Your task to perform on an android device: turn off javascript in the chrome app Image 0: 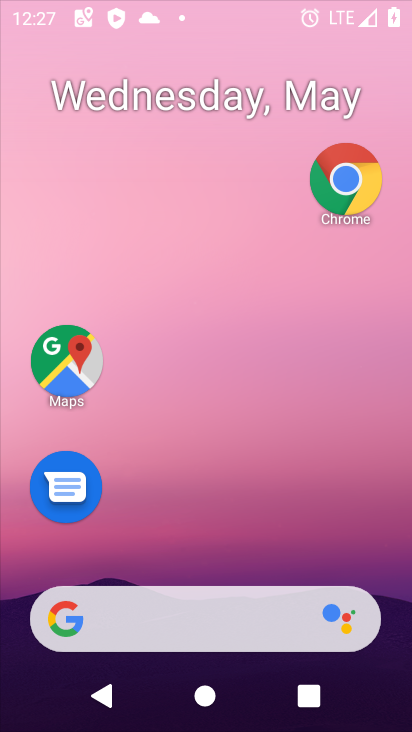
Step 0: click (290, 67)
Your task to perform on an android device: turn off javascript in the chrome app Image 1: 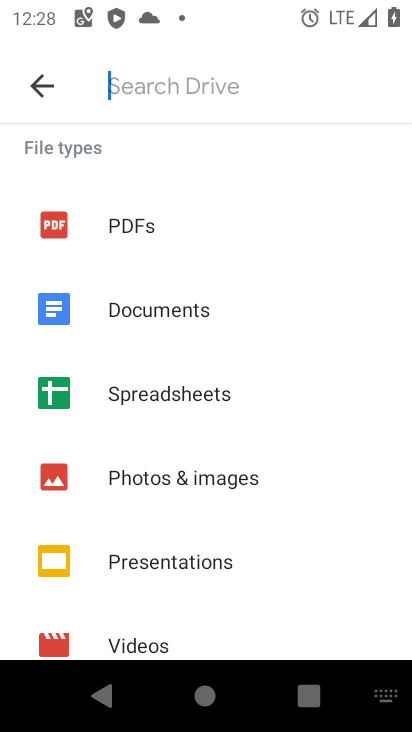
Step 1: drag from (196, 563) to (283, 179)
Your task to perform on an android device: turn off javascript in the chrome app Image 2: 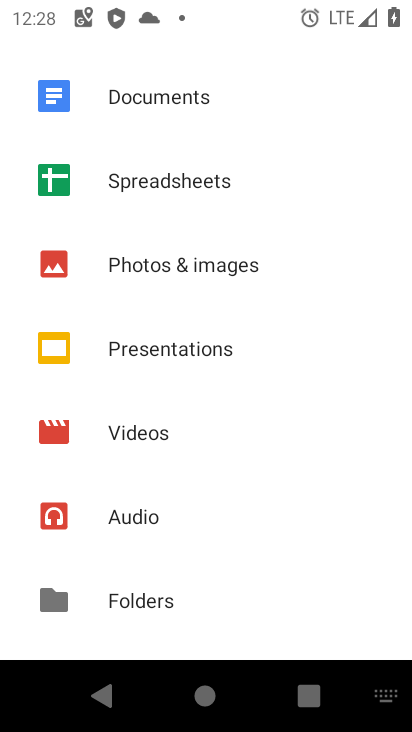
Step 2: press home button
Your task to perform on an android device: turn off javascript in the chrome app Image 3: 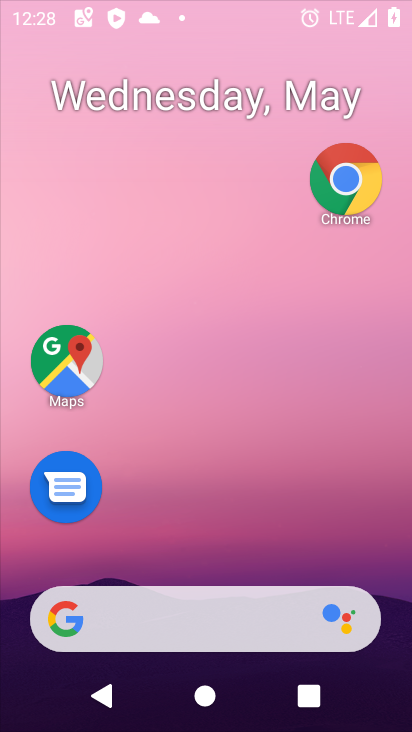
Step 3: drag from (223, 577) to (286, 217)
Your task to perform on an android device: turn off javascript in the chrome app Image 4: 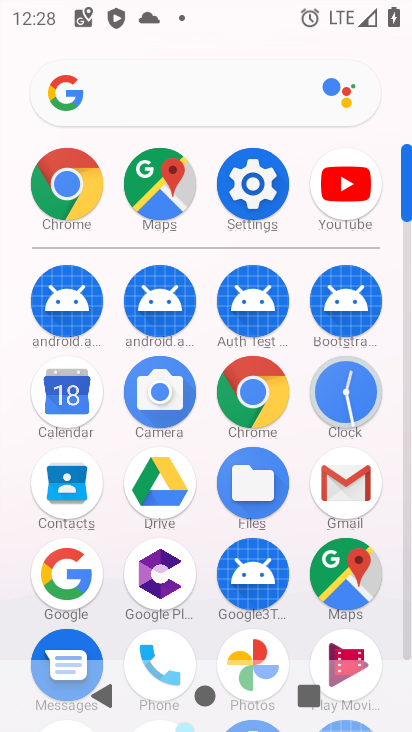
Step 4: click (255, 406)
Your task to perform on an android device: turn off javascript in the chrome app Image 5: 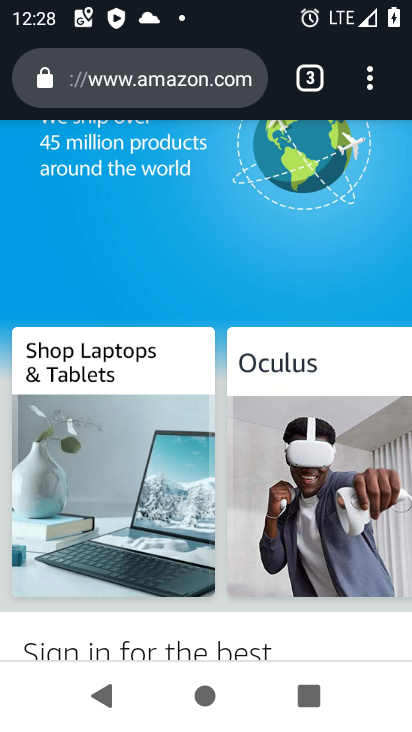
Step 5: drag from (204, 493) to (207, 270)
Your task to perform on an android device: turn off javascript in the chrome app Image 6: 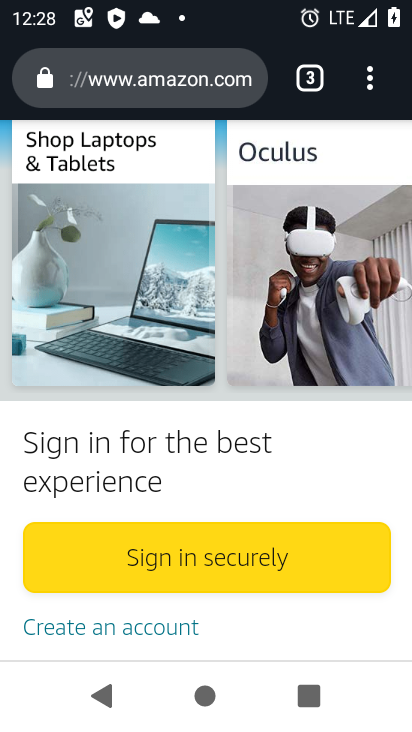
Step 6: click (376, 69)
Your task to perform on an android device: turn off javascript in the chrome app Image 7: 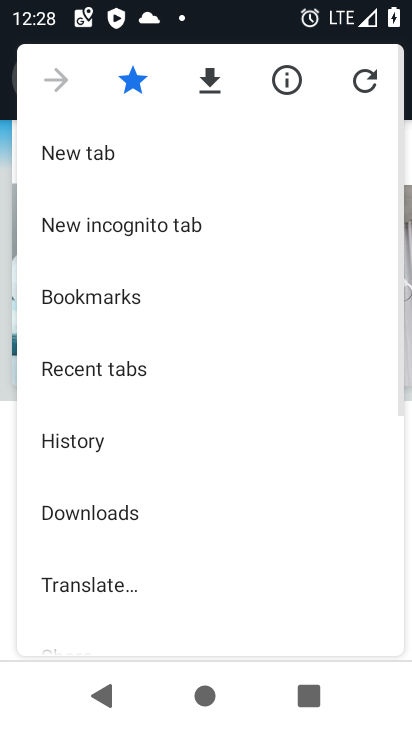
Step 7: drag from (249, 602) to (265, 153)
Your task to perform on an android device: turn off javascript in the chrome app Image 8: 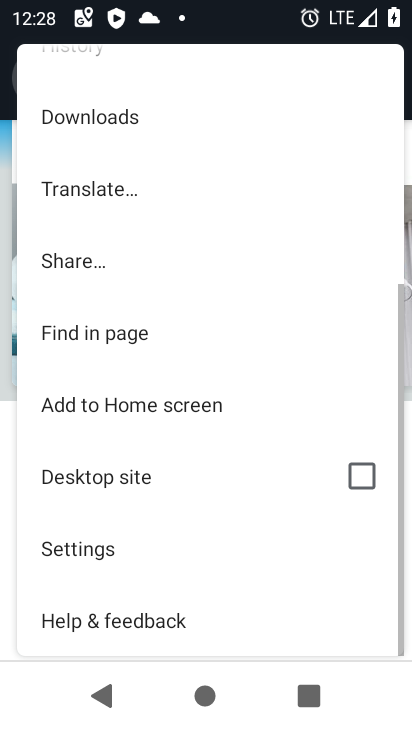
Step 8: click (181, 543)
Your task to perform on an android device: turn off javascript in the chrome app Image 9: 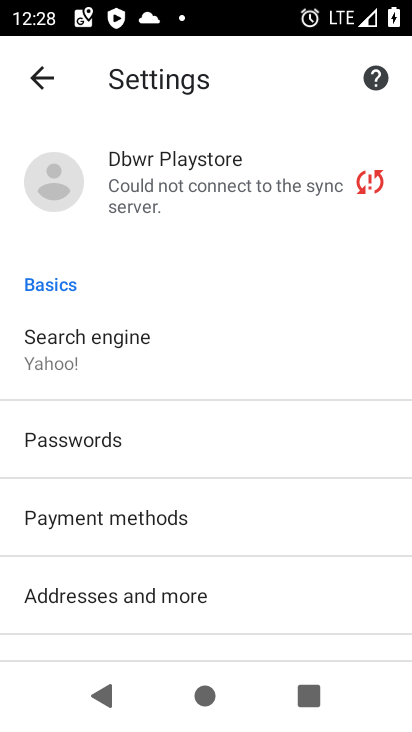
Step 9: drag from (194, 470) to (326, 103)
Your task to perform on an android device: turn off javascript in the chrome app Image 10: 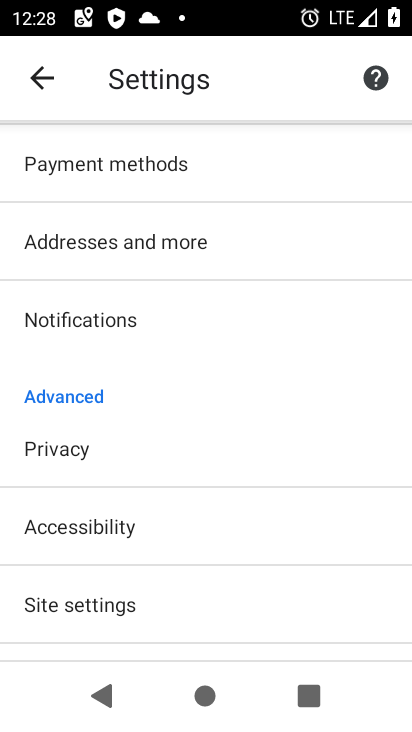
Step 10: click (173, 577)
Your task to perform on an android device: turn off javascript in the chrome app Image 11: 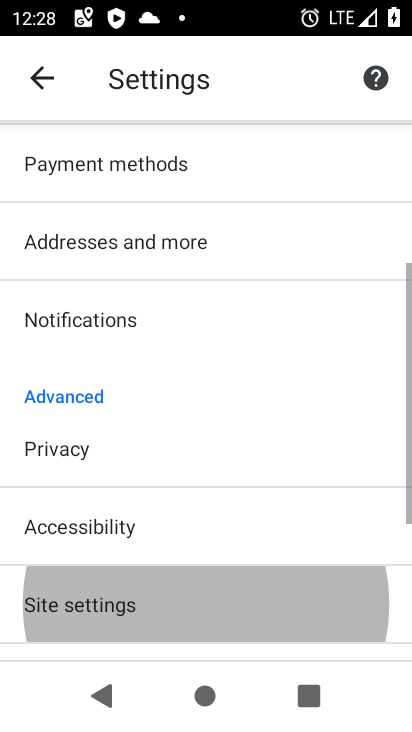
Step 11: click (173, 577)
Your task to perform on an android device: turn off javascript in the chrome app Image 12: 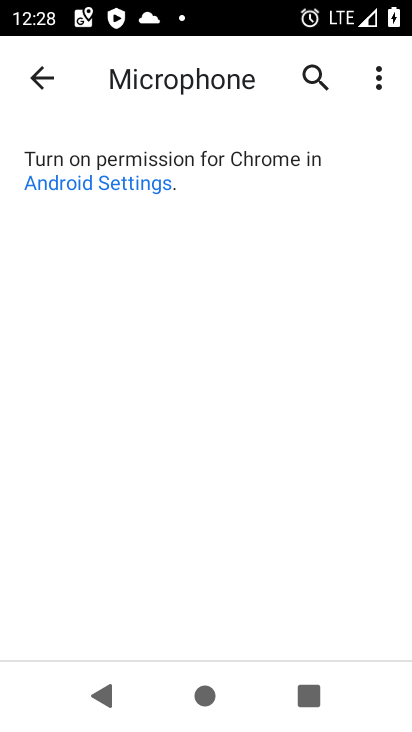
Step 12: click (38, 84)
Your task to perform on an android device: turn off javascript in the chrome app Image 13: 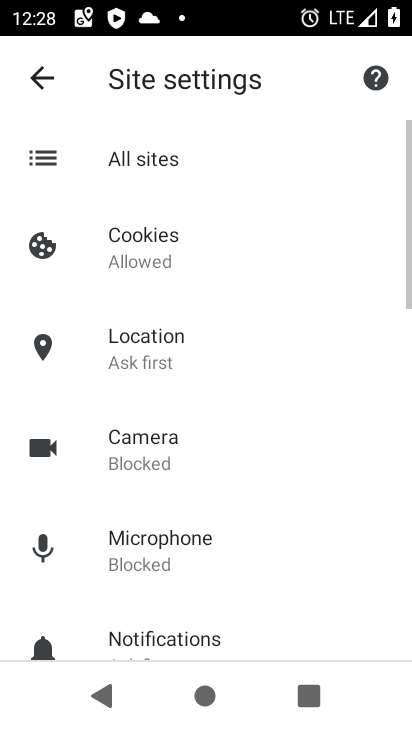
Step 13: drag from (216, 582) to (244, 318)
Your task to perform on an android device: turn off javascript in the chrome app Image 14: 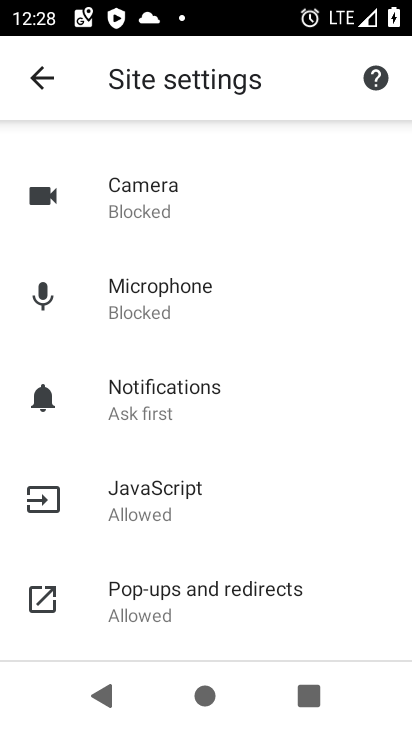
Step 14: click (259, 494)
Your task to perform on an android device: turn off javascript in the chrome app Image 15: 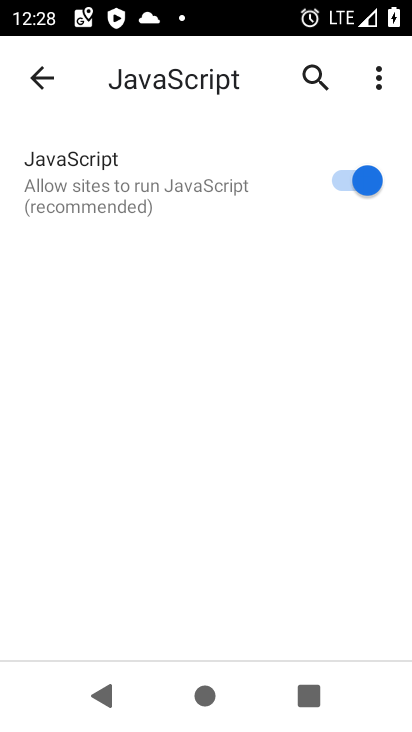
Step 15: click (362, 176)
Your task to perform on an android device: turn off javascript in the chrome app Image 16: 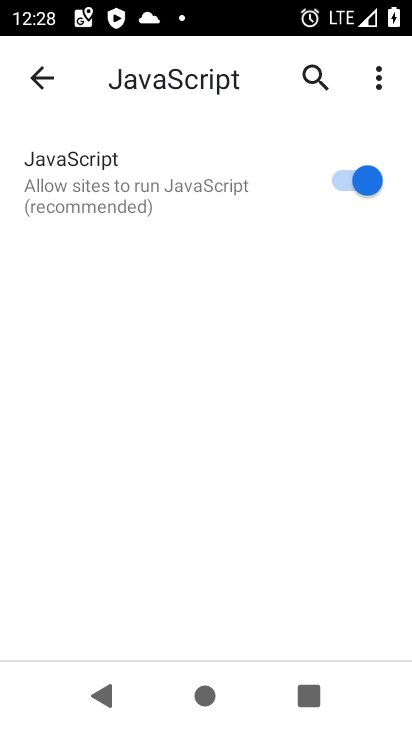
Step 16: task complete